Your task to perform on an android device: Search for amazon basics triple a on walmart, select the first entry, add it to the cart, then select checkout. Image 0: 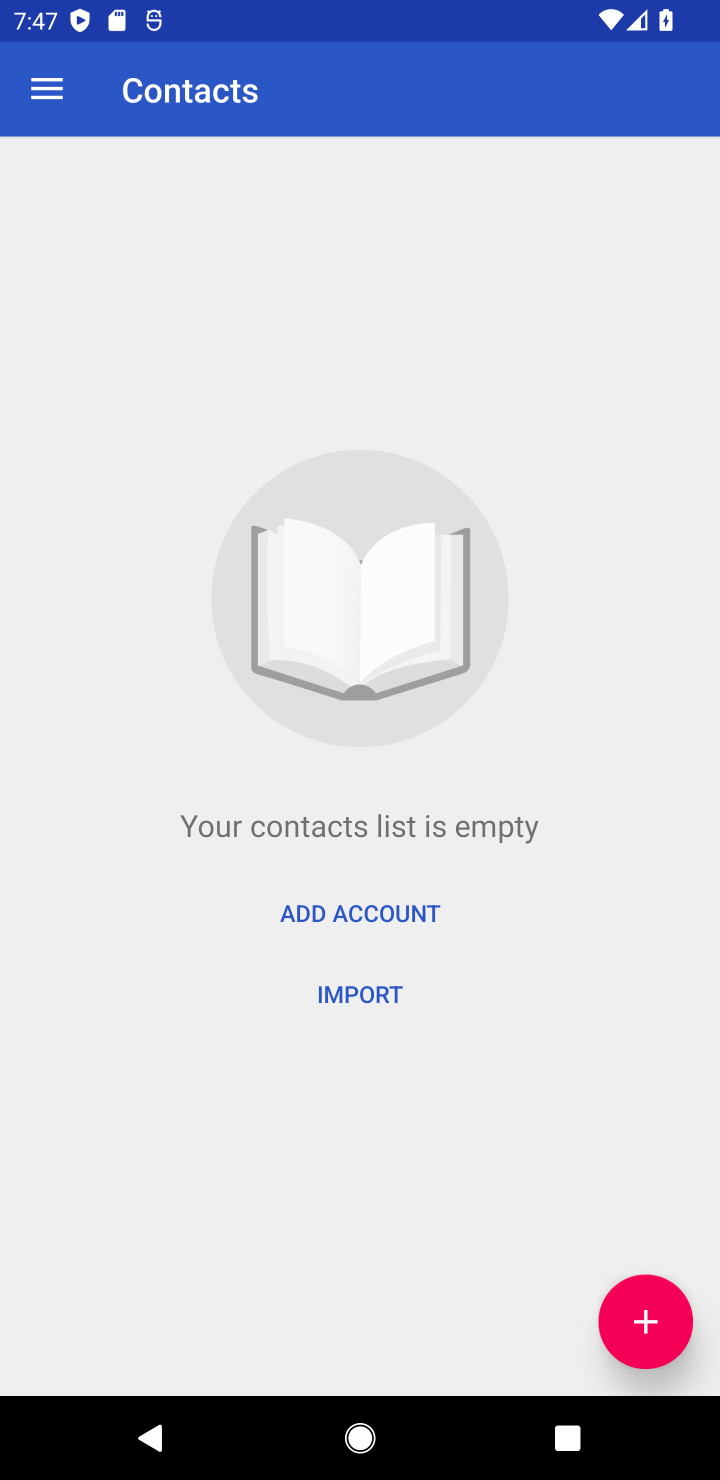
Step 0: press home button
Your task to perform on an android device: Search for amazon basics triple a on walmart, select the first entry, add it to the cart, then select checkout. Image 1: 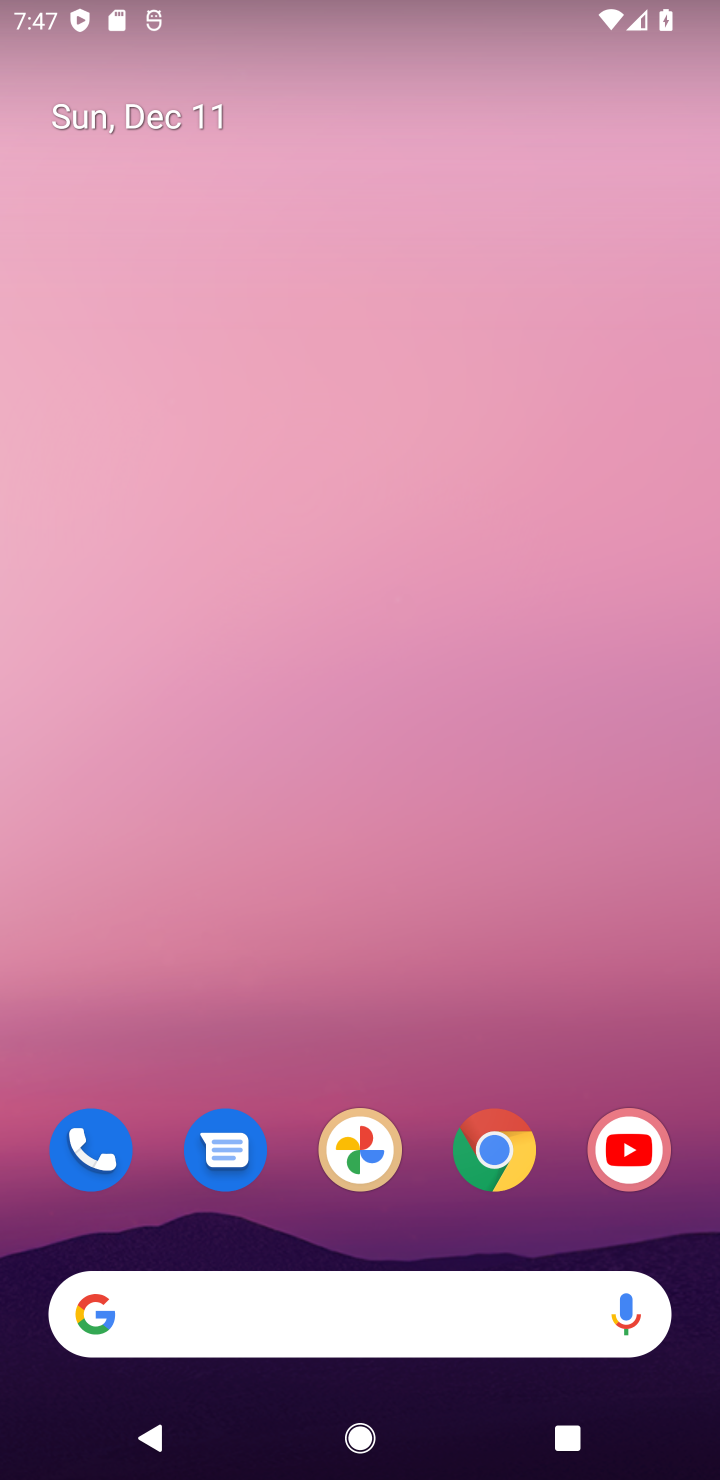
Step 1: click (495, 1152)
Your task to perform on an android device: Search for amazon basics triple a on walmart, select the first entry, add it to the cart, then select checkout. Image 2: 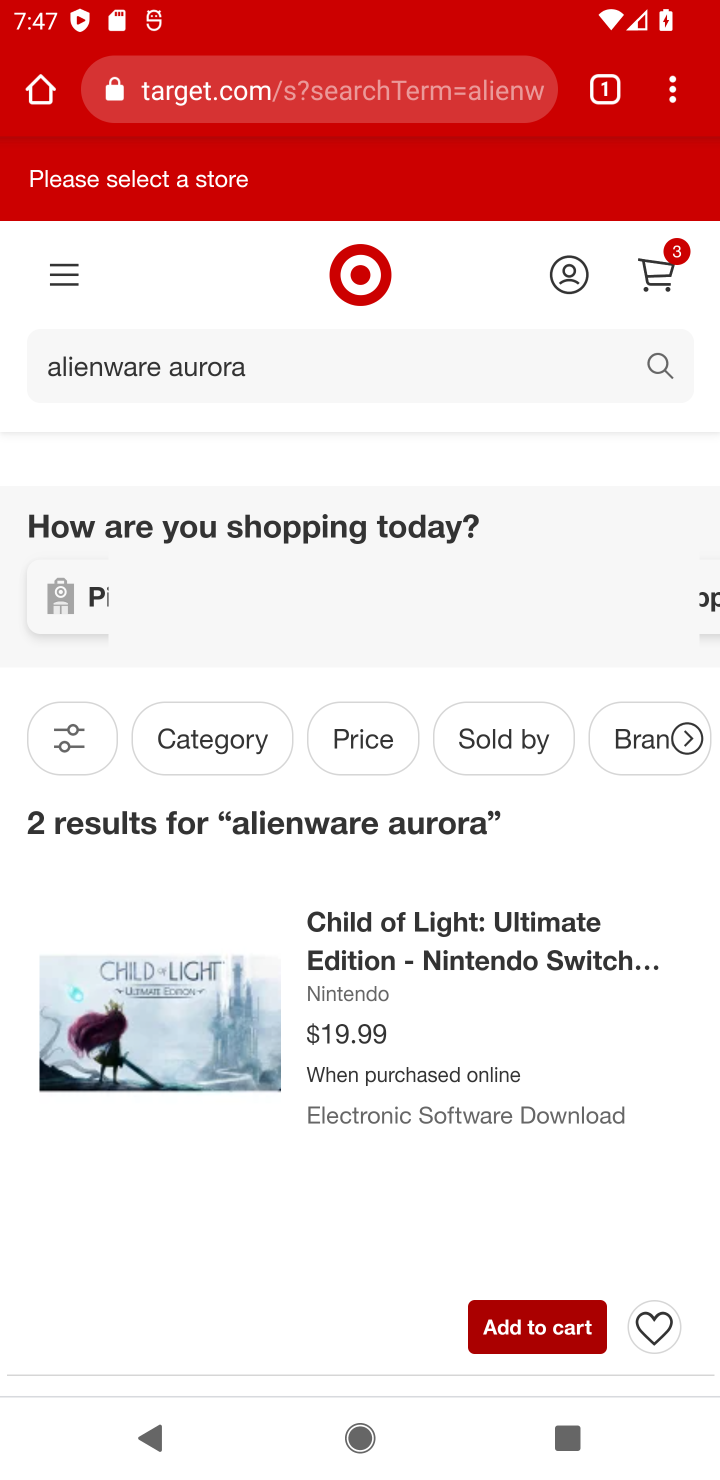
Step 2: click (348, 96)
Your task to perform on an android device: Search for amazon basics triple a on walmart, select the first entry, add it to the cart, then select checkout. Image 3: 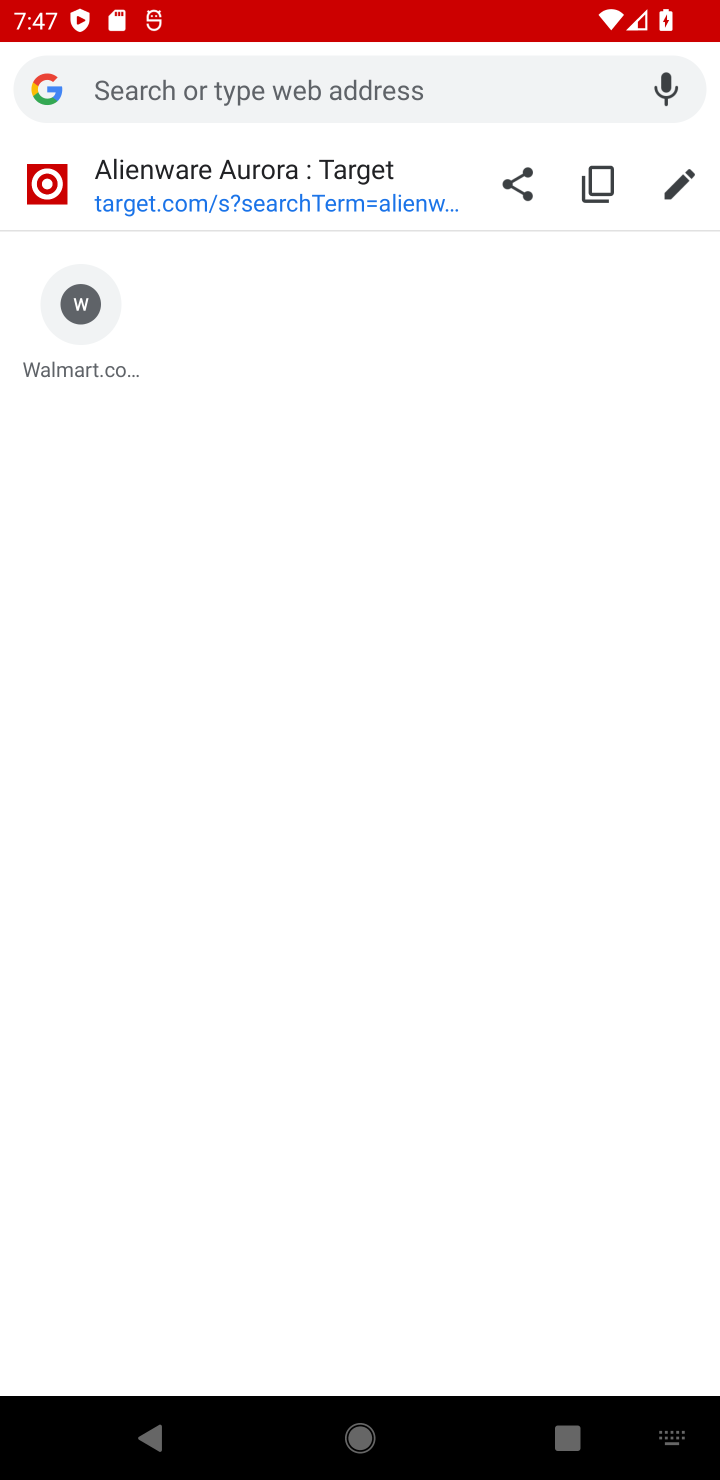
Step 3: type "walmart"
Your task to perform on an android device: Search for amazon basics triple a on walmart, select the first entry, add it to the cart, then select checkout. Image 4: 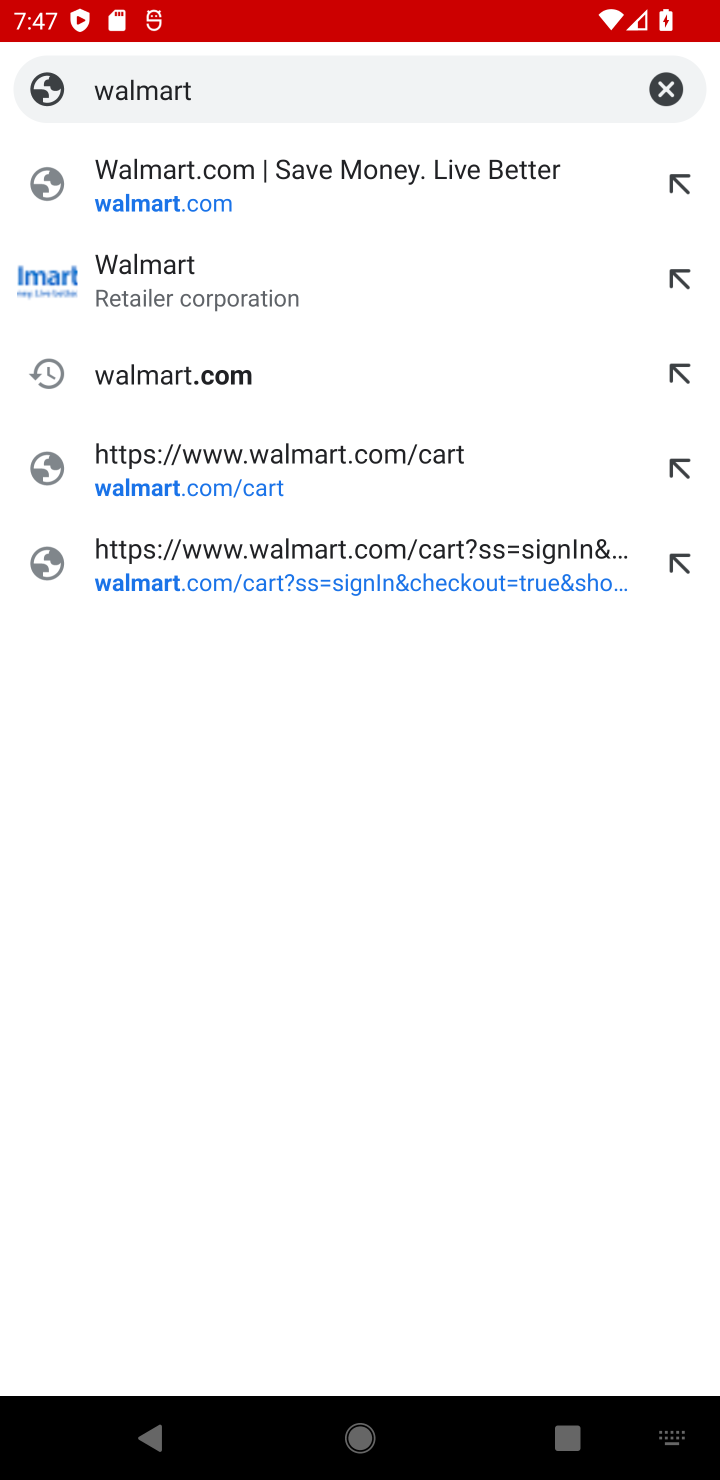
Step 4: click (149, 277)
Your task to perform on an android device: Search for amazon basics triple a on walmart, select the first entry, add it to the cart, then select checkout. Image 5: 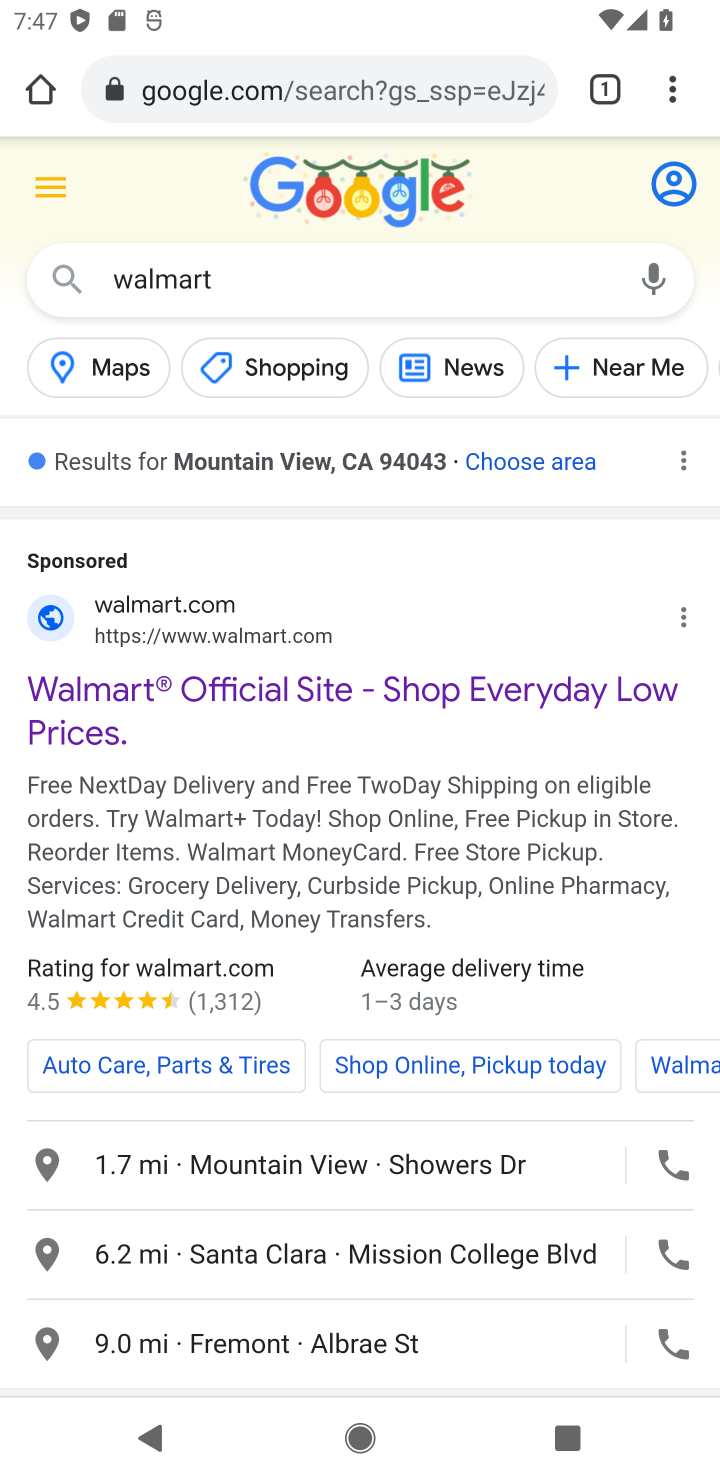
Step 5: drag from (433, 1011) to (526, 637)
Your task to perform on an android device: Search for amazon basics triple a on walmart, select the first entry, add it to the cart, then select checkout. Image 6: 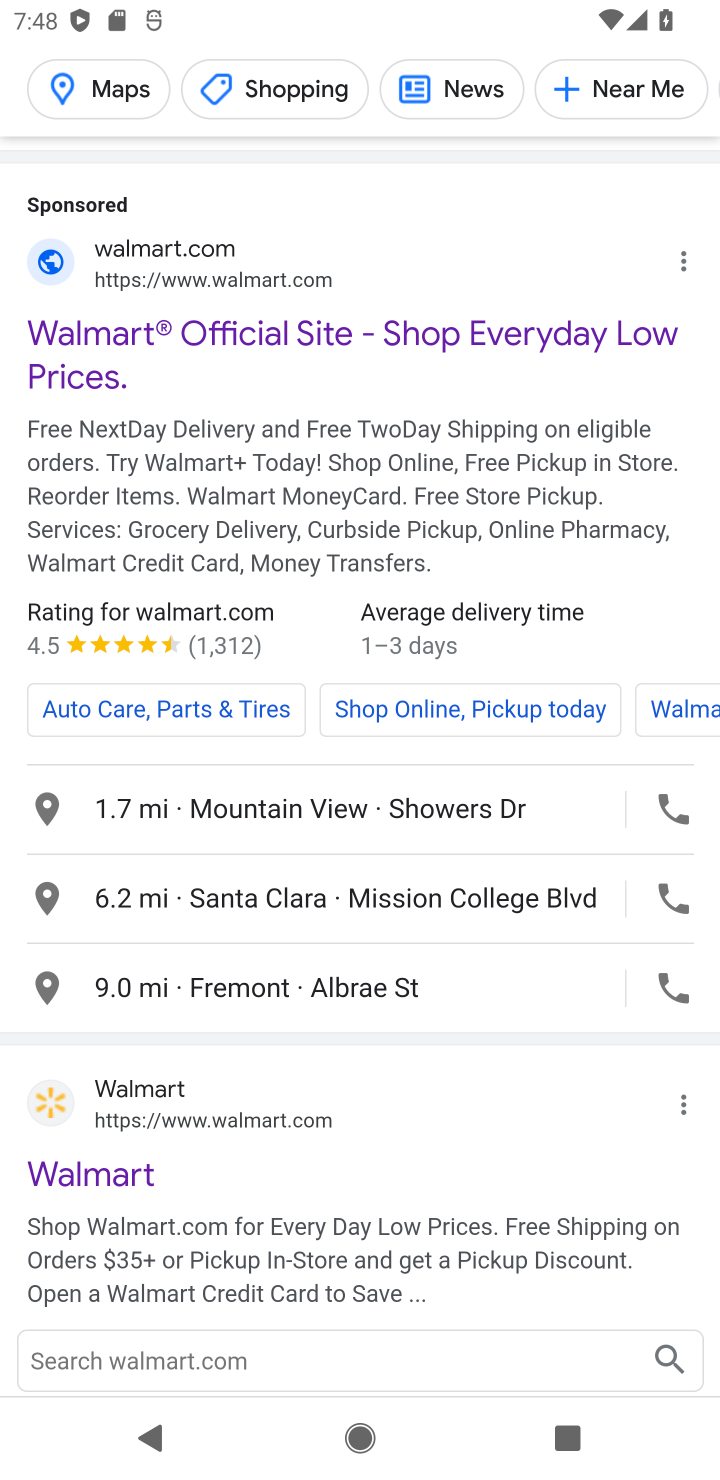
Step 6: click (202, 1186)
Your task to perform on an android device: Search for amazon basics triple a on walmart, select the first entry, add it to the cart, then select checkout. Image 7: 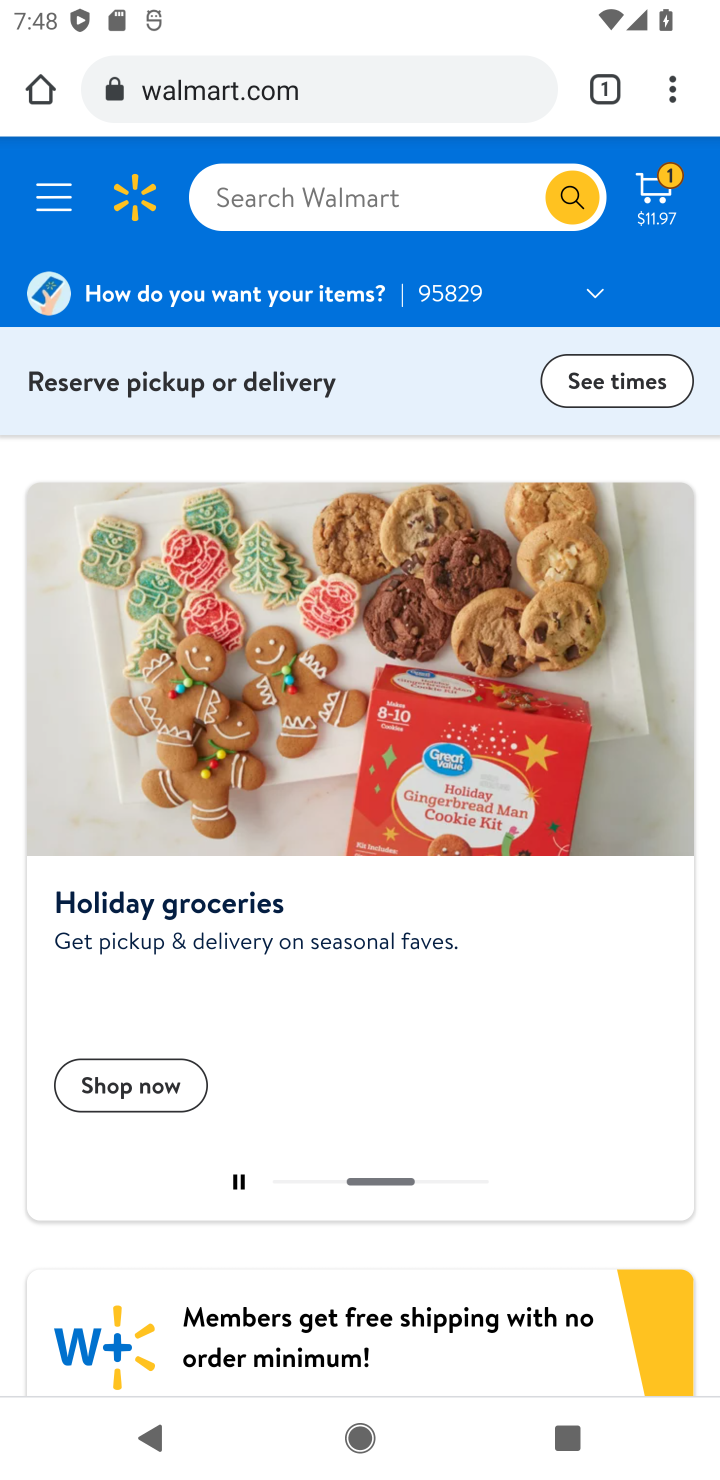
Step 7: drag from (404, 1254) to (492, 702)
Your task to perform on an android device: Search for amazon basics triple a on walmart, select the first entry, add it to the cart, then select checkout. Image 8: 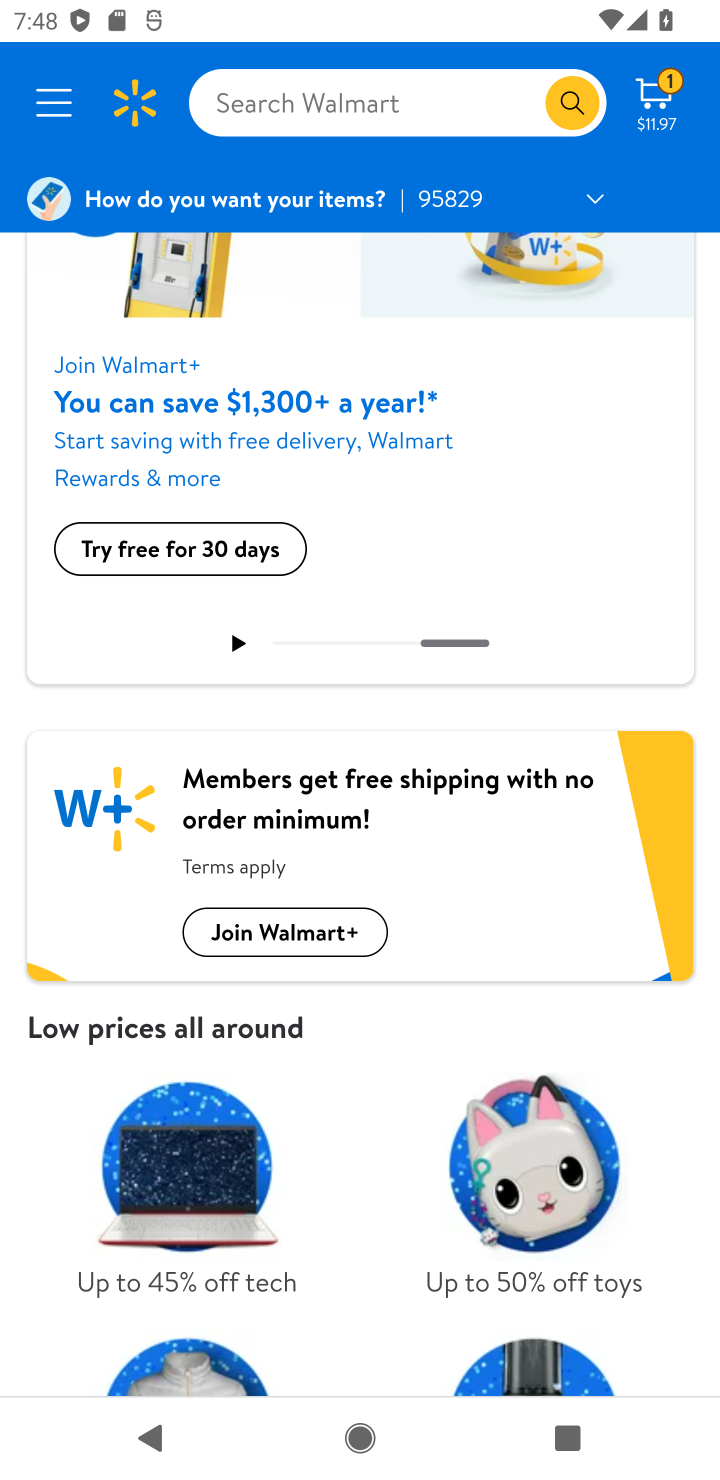
Step 8: click (442, 105)
Your task to perform on an android device: Search for amazon basics triple a on walmart, select the first entry, add it to the cart, then select checkout. Image 9: 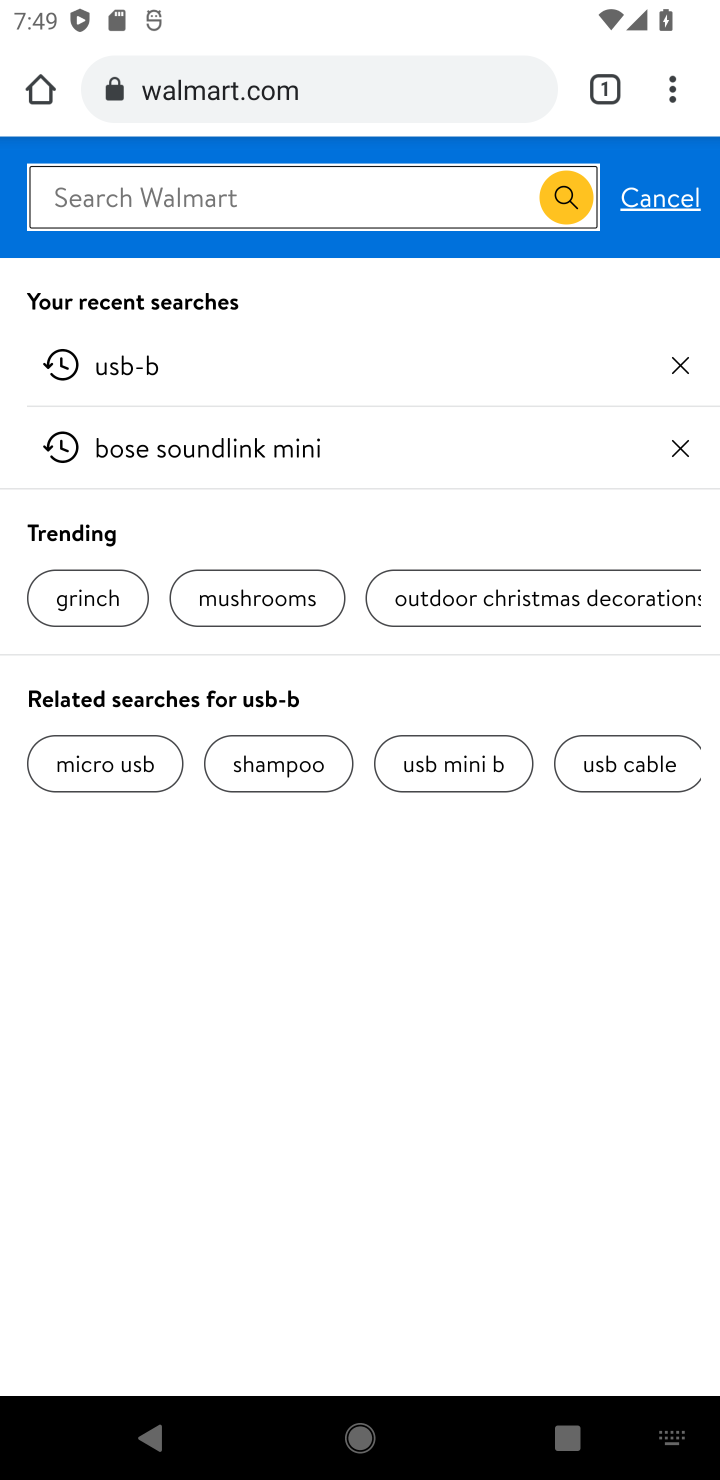
Step 9: type "amazon basics triple a"
Your task to perform on an android device: Search for amazon basics triple a on walmart, select the first entry, add it to the cart, then select checkout. Image 10: 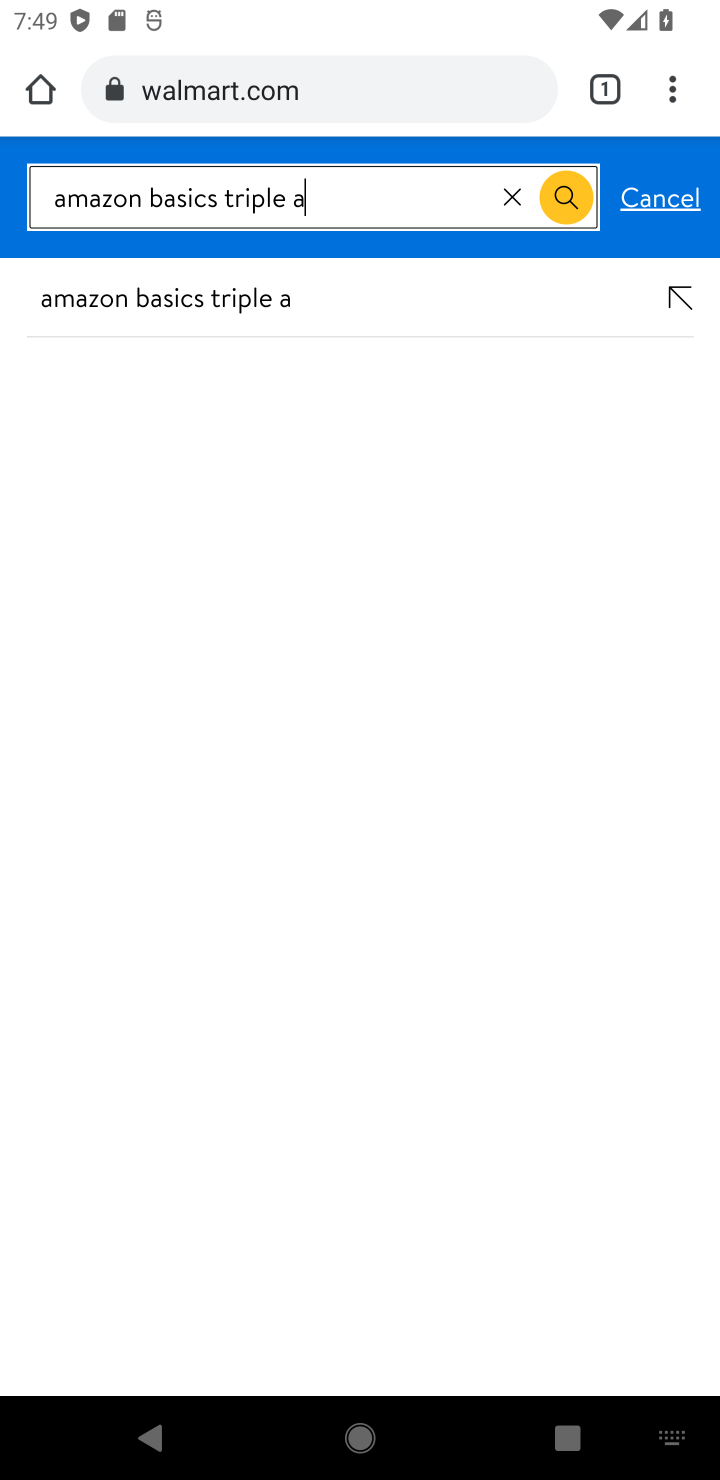
Step 10: click (185, 305)
Your task to perform on an android device: Search for amazon basics triple a on walmart, select the first entry, add it to the cart, then select checkout. Image 11: 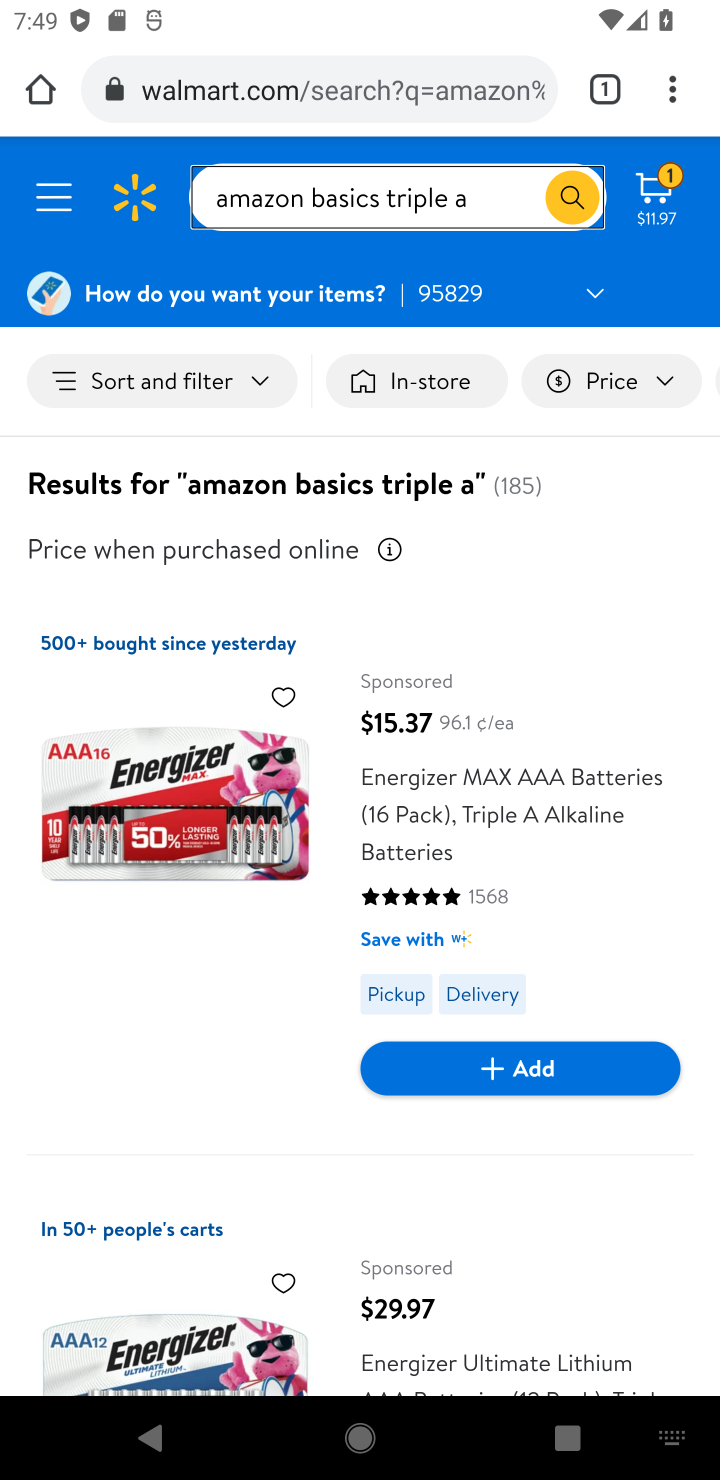
Step 11: click (510, 824)
Your task to perform on an android device: Search for amazon basics triple a on walmart, select the first entry, add it to the cart, then select checkout. Image 12: 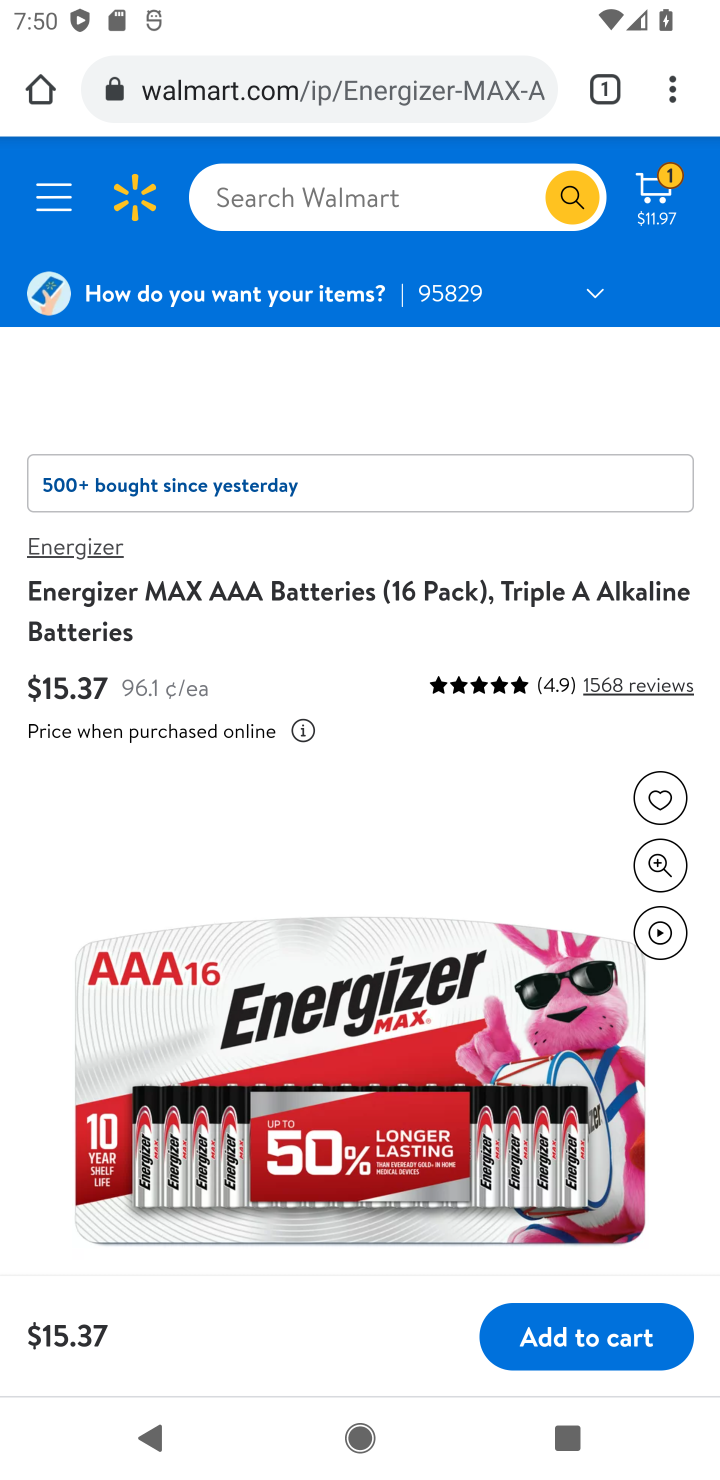
Step 12: click (587, 1338)
Your task to perform on an android device: Search for amazon basics triple a on walmart, select the first entry, add it to the cart, then select checkout. Image 13: 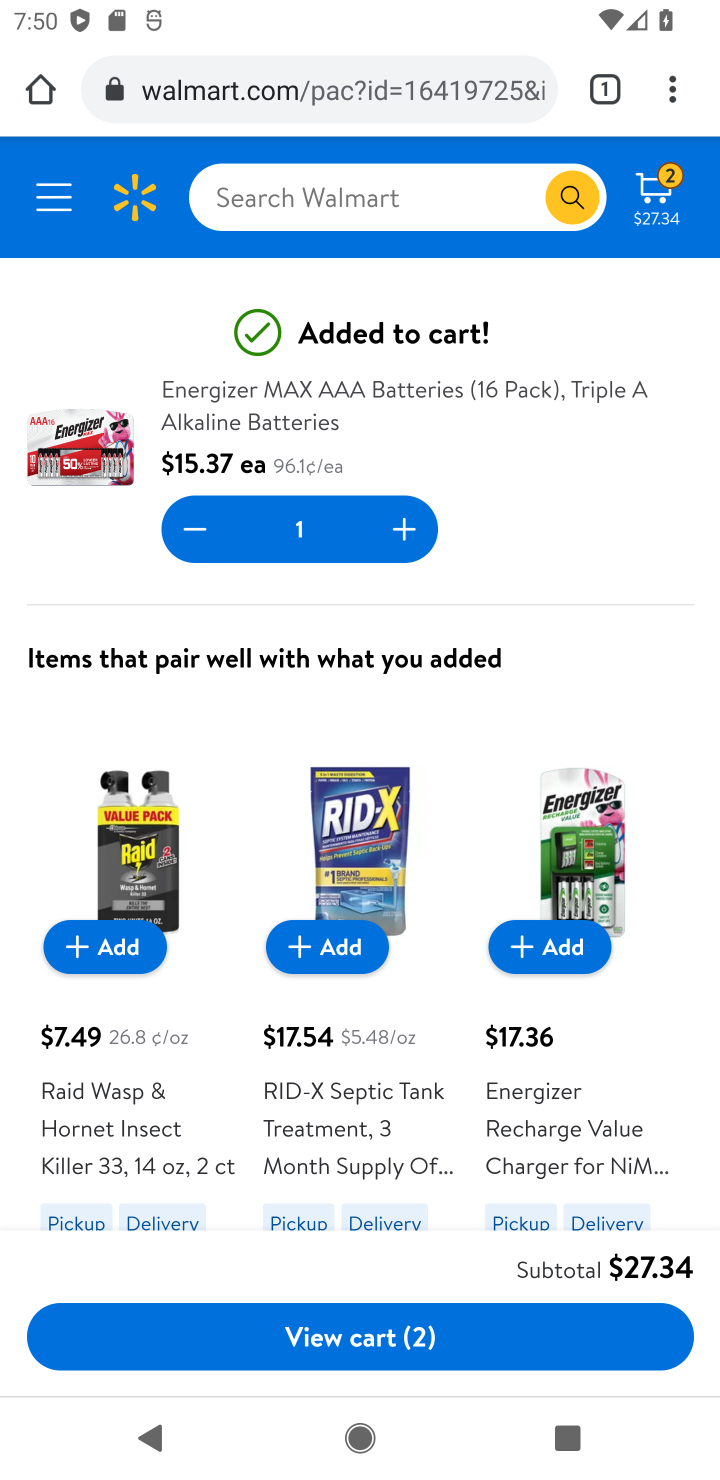
Step 13: click (664, 198)
Your task to perform on an android device: Search for amazon basics triple a on walmart, select the first entry, add it to the cart, then select checkout. Image 14: 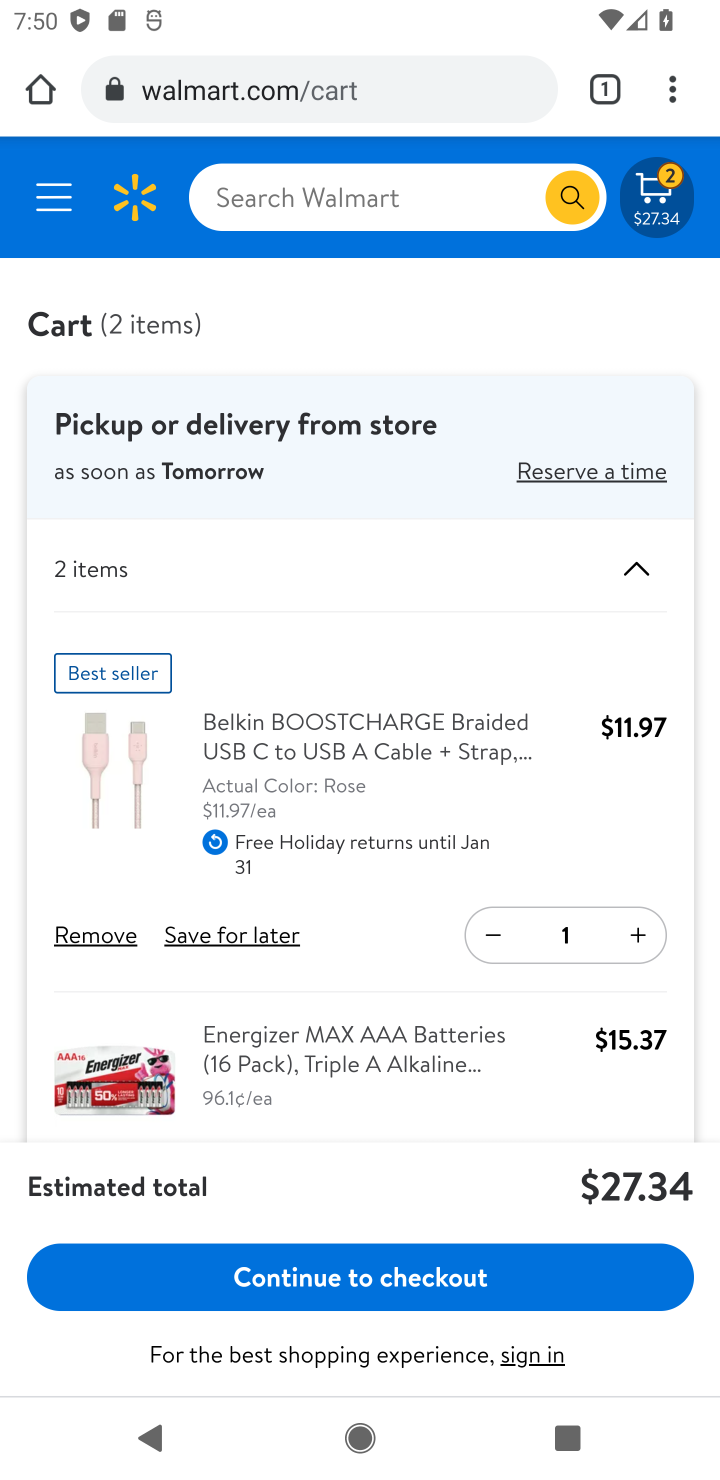
Step 14: click (383, 1275)
Your task to perform on an android device: Search for amazon basics triple a on walmart, select the first entry, add it to the cart, then select checkout. Image 15: 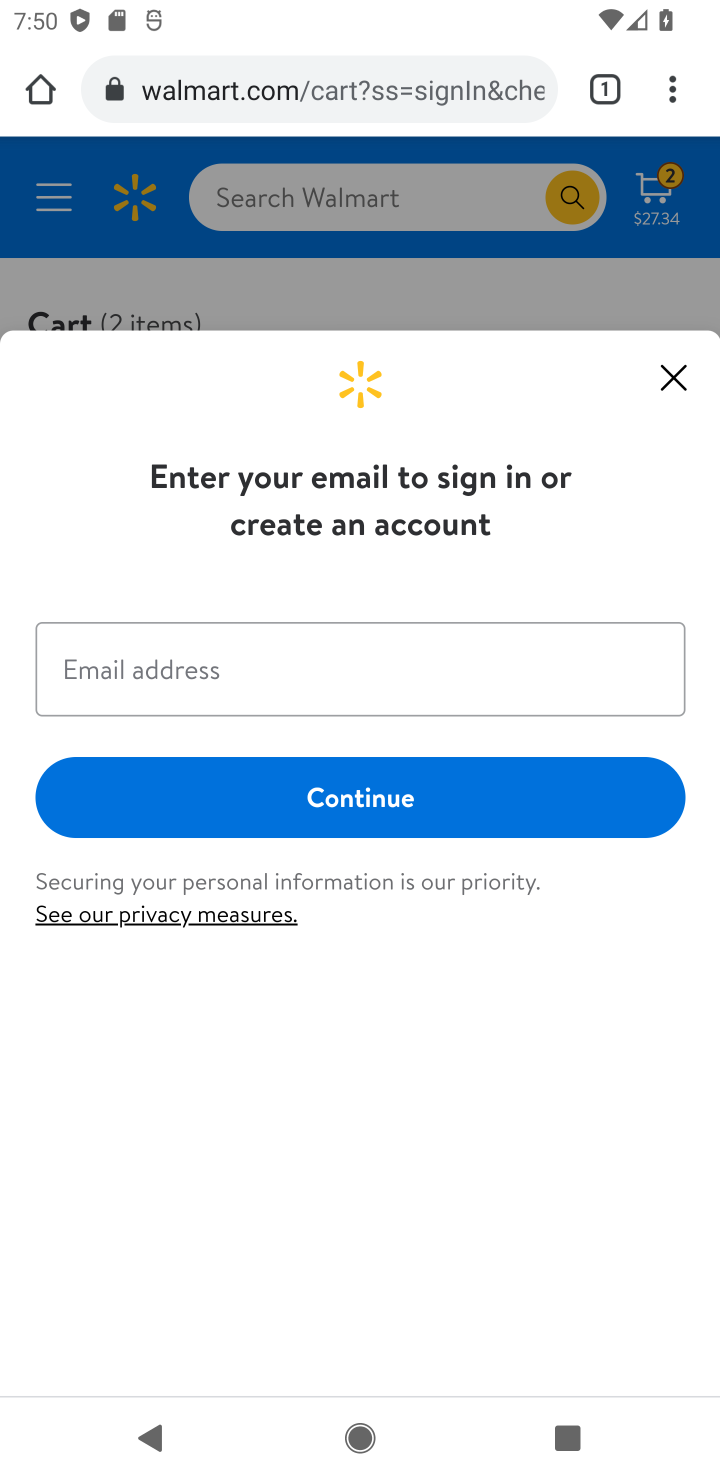
Step 15: task complete